Your task to perform on an android device: empty trash in google photos Image 0: 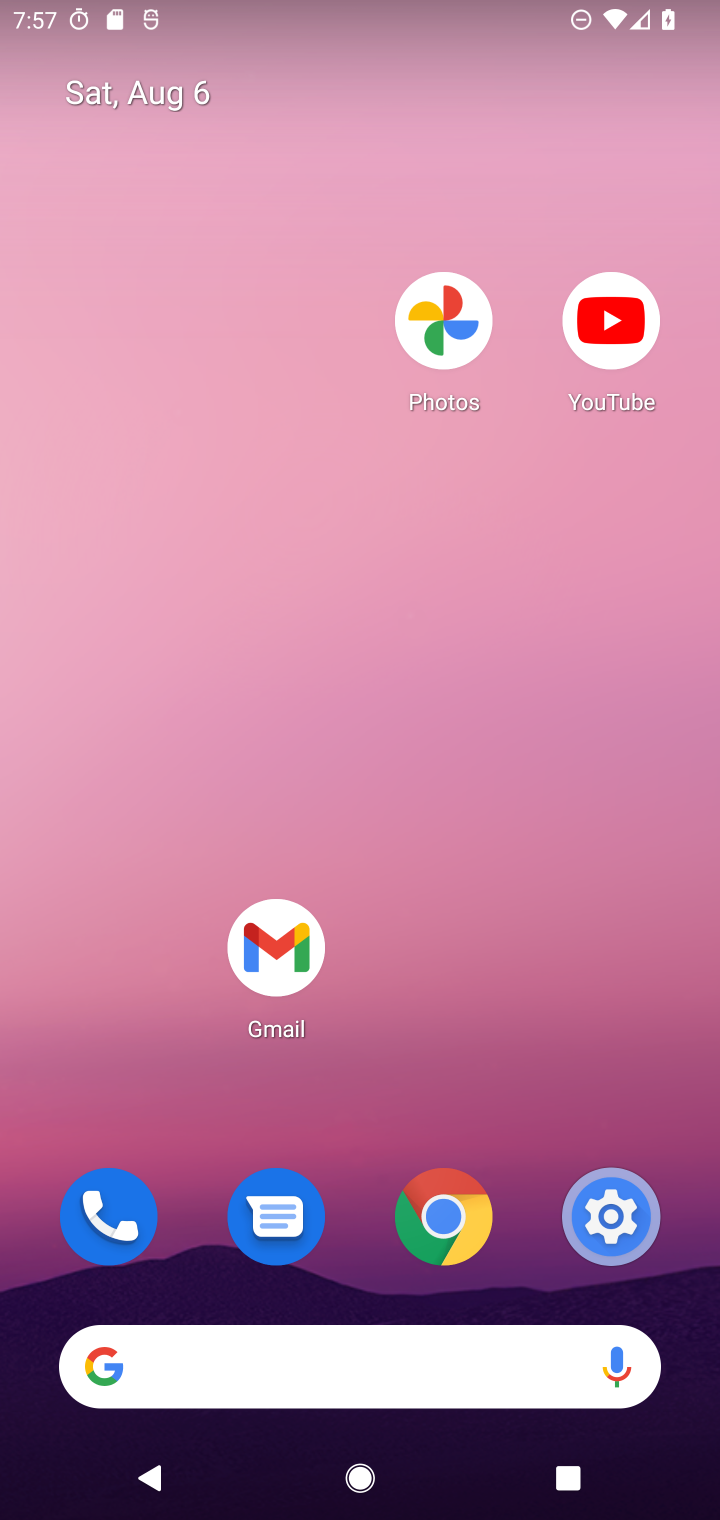
Step 0: drag from (520, 748) to (465, 32)
Your task to perform on an android device: empty trash in google photos Image 1: 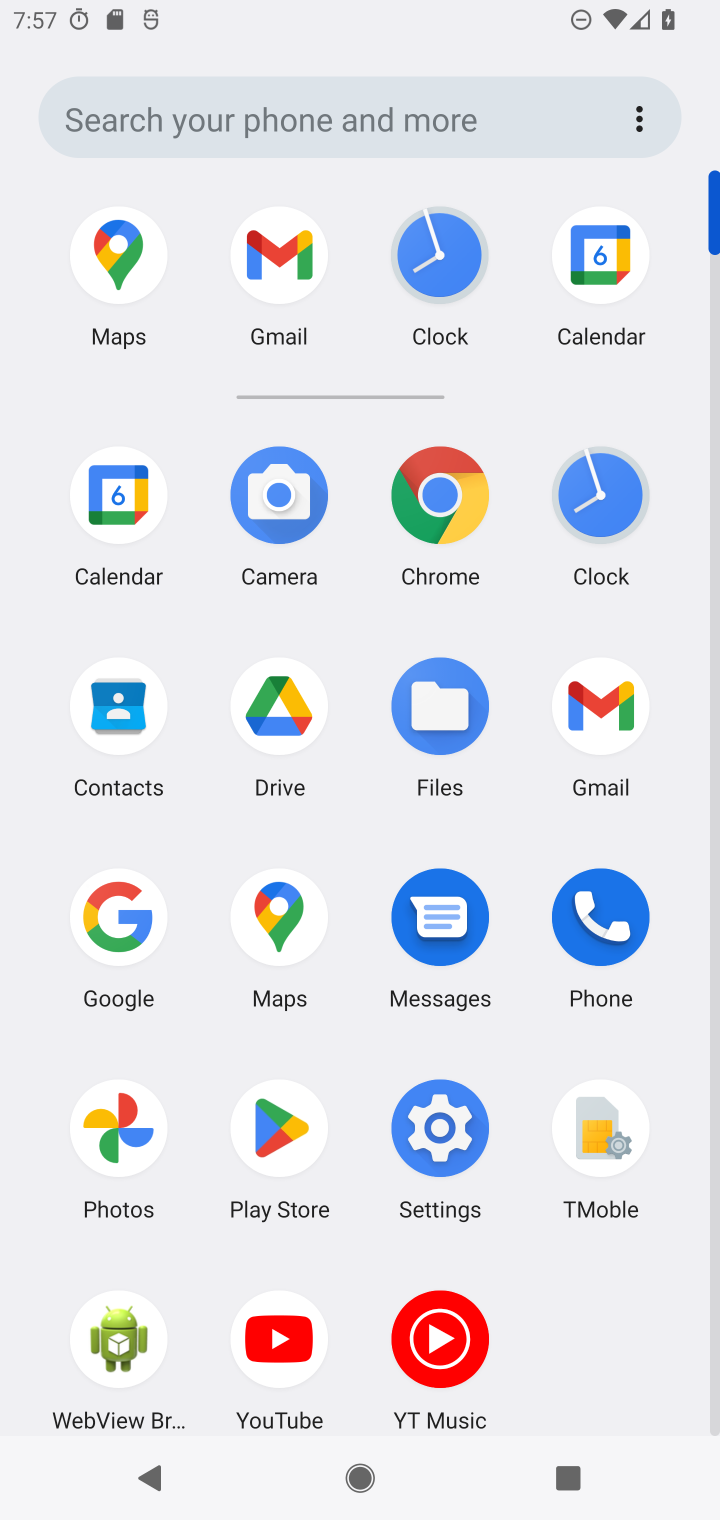
Step 1: click (117, 1125)
Your task to perform on an android device: empty trash in google photos Image 2: 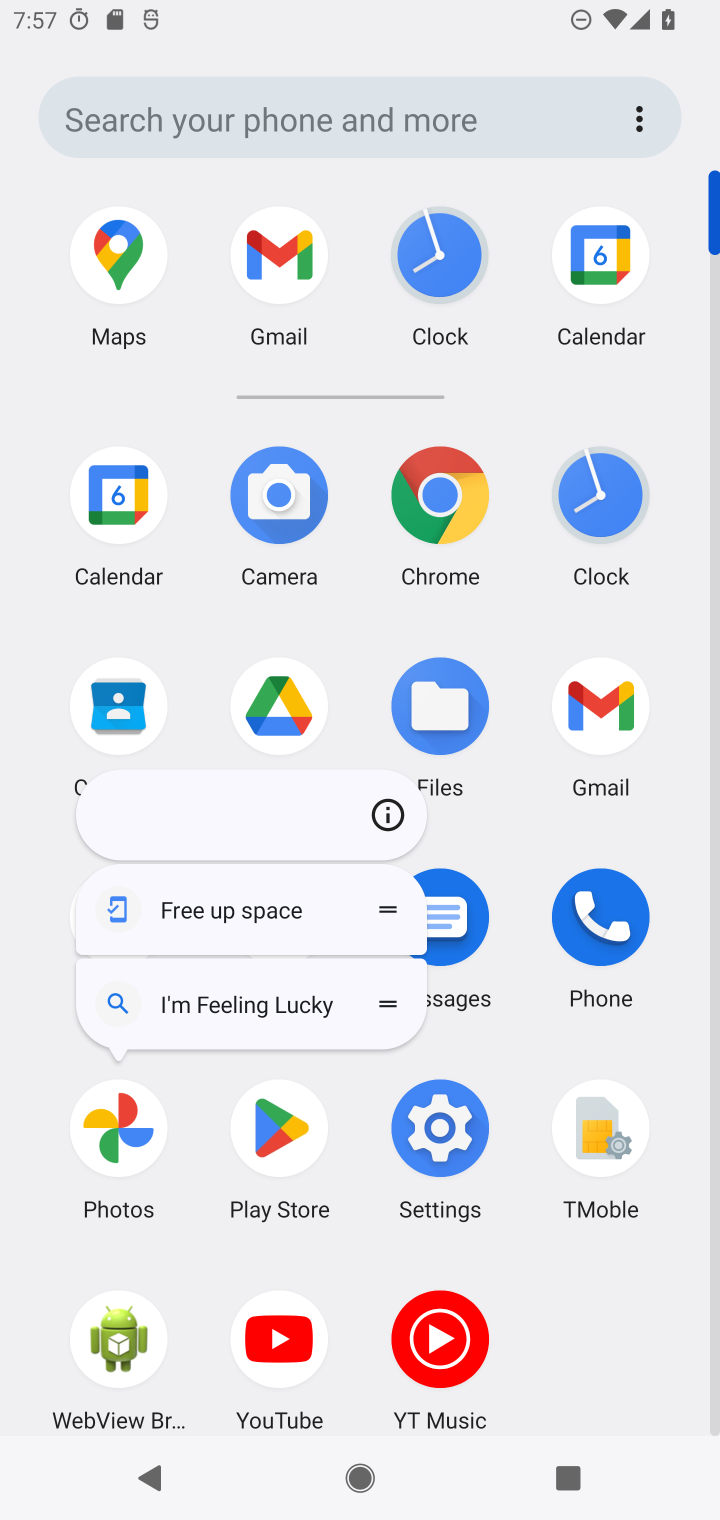
Step 2: click (120, 1131)
Your task to perform on an android device: empty trash in google photos Image 3: 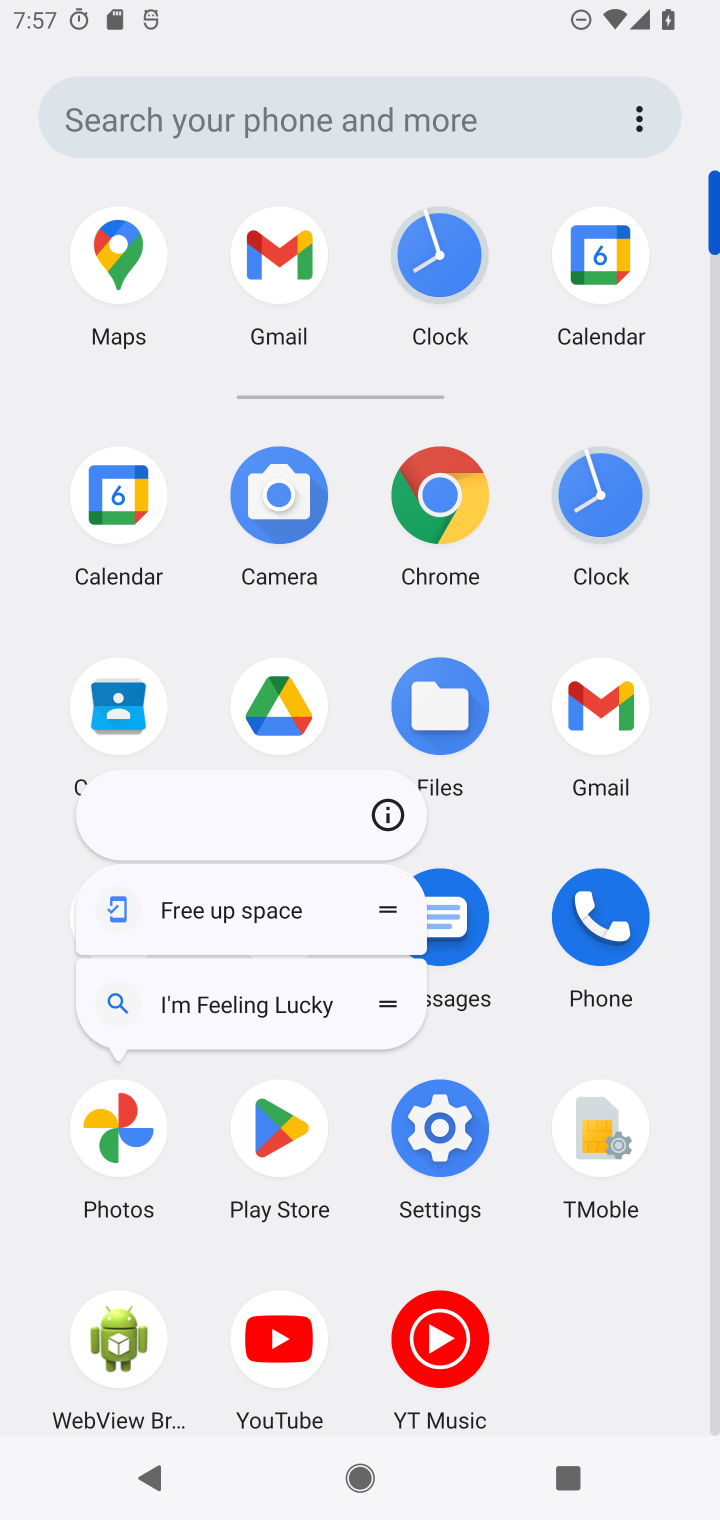
Step 3: click (120, 1129)
Your task to perform on an android device: empty trash in google photos Image 4: 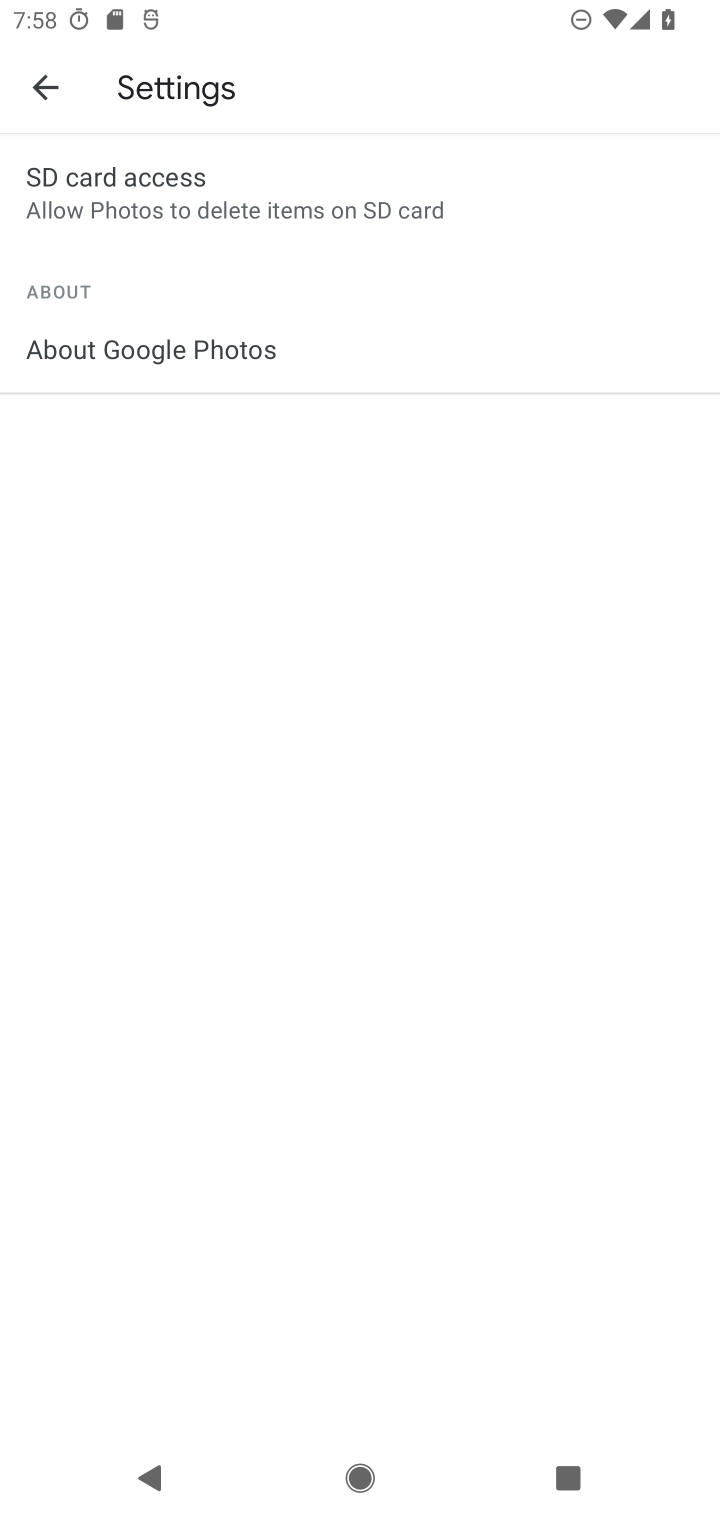
Step 4: click (56, 90)
Your task to perform on an android device: empty trash in google photos Image 5: 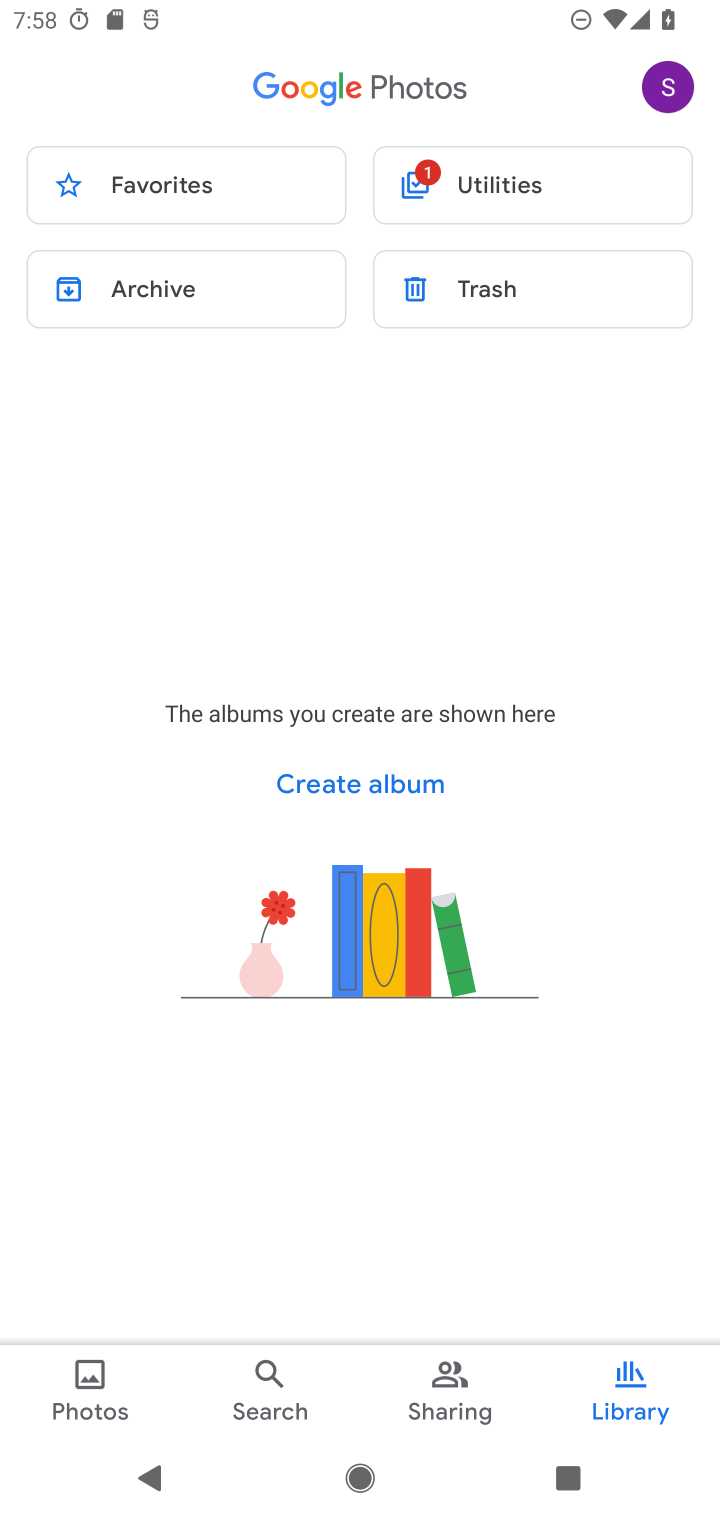
Step 5: click (534, 274)
Your task to perform on an android device: empty trash in google photos Image 6: 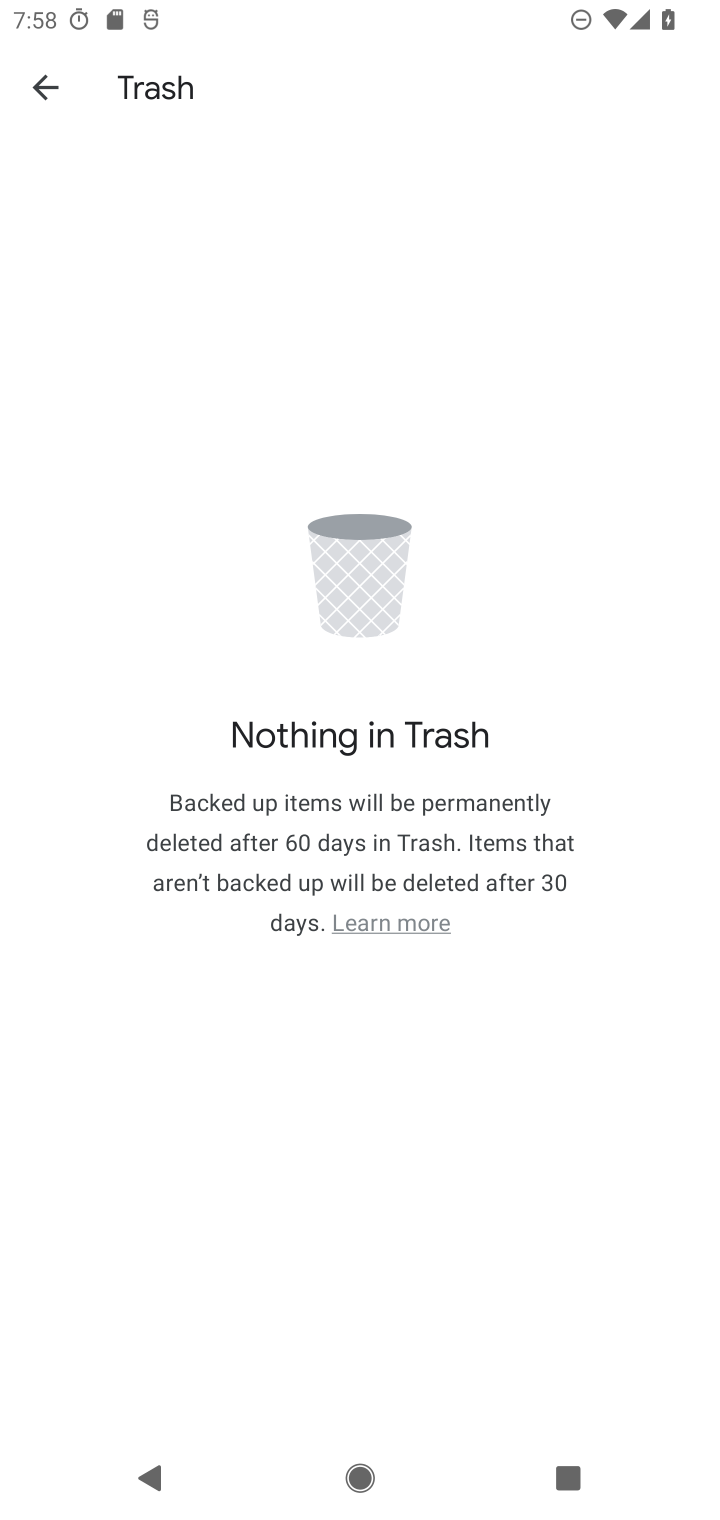
Step 6: task complete